Your task to perform on an android device: Open Chrome and go to settings Image 0: 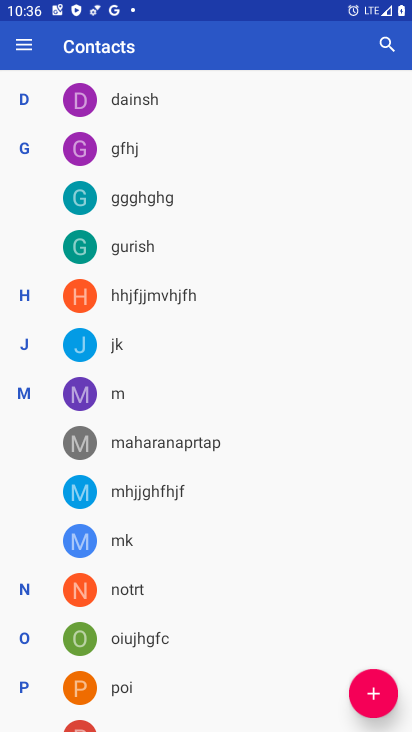
Step 0: press home button
Your task to perform on an android device: Open Chrome and go to settings Image 1: 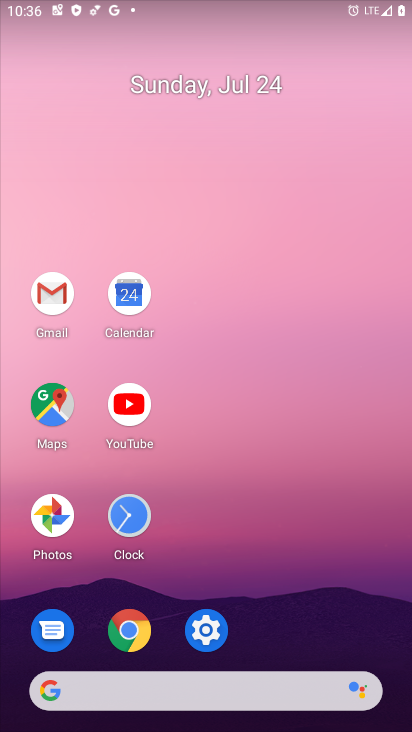
Step 1: click (121, 639)
Your task to perform on an android device: Open Chrome and go to settings Image 2: 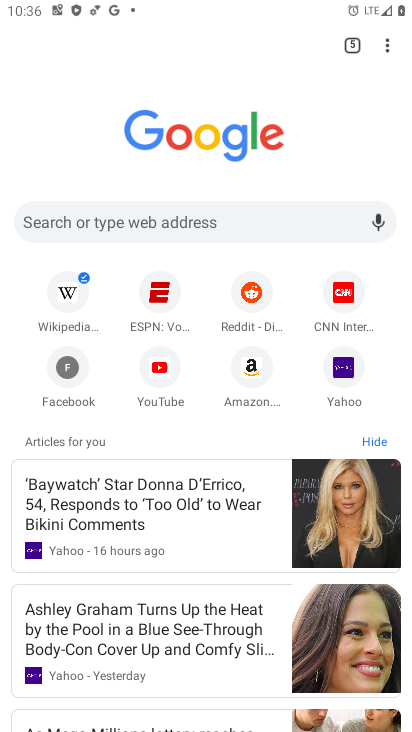
Step 2: click (388, 48)
Your task to perform on an android device: Open Chrome and go to settings Image 3: 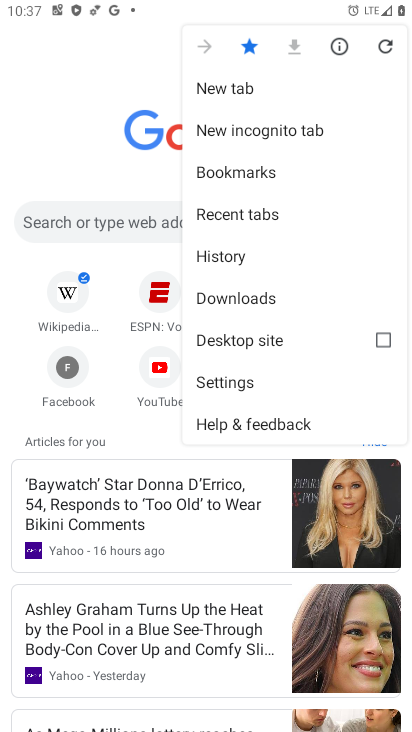
Step 3: click (224, 375)
Your task to perform on an android device: Open Chrome and go to settings Image 4: 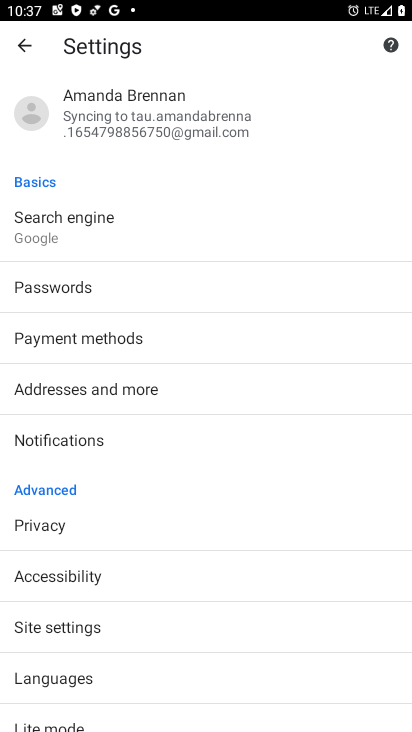
Step 4: task complete